Your task to perform on an android device: turn on the 24-hour format for clock Image 0: 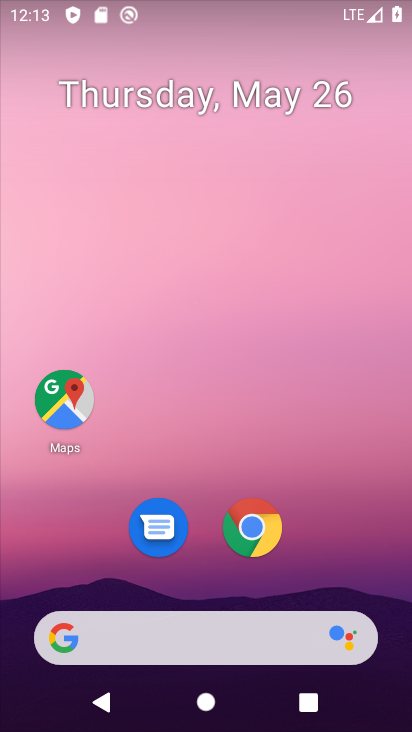
Step 0: drag from (210, 554) to (144, 9)
Your task to perform on an android device: turn on the 24-hour format for clock Image 1: 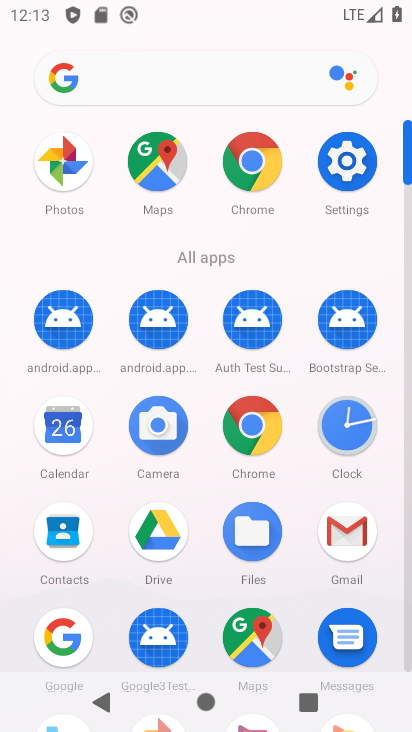
Step 1: click (355, 437)
Your task to perform on an android device: turn on the 24-hour format for clock Image 2: 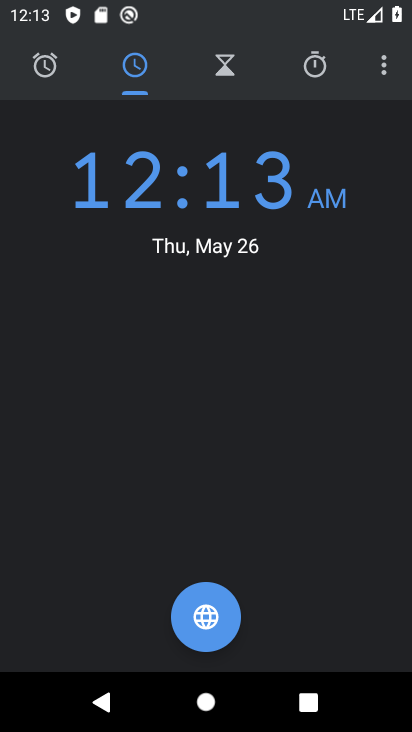
Step 2: click (392, 57)
Your task to perform on an android device: turn on the 24-hour format for clock Image 3: 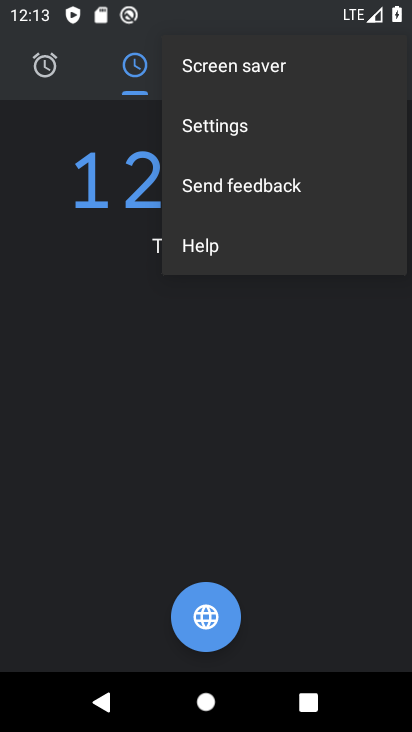
Step 3: click (233, 142)
Your task to perform on an android device: turn on the 24-hour format for clock Image 4: 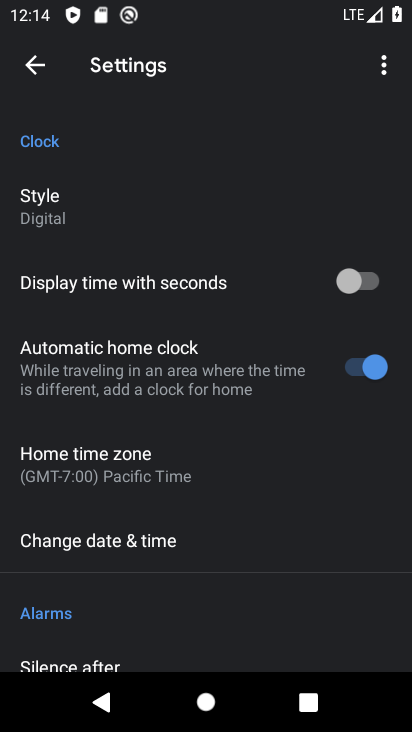
Step 4: click (128, 530)
Your task to perform on an android device: turn on the 24-hour format for clock Image 5: 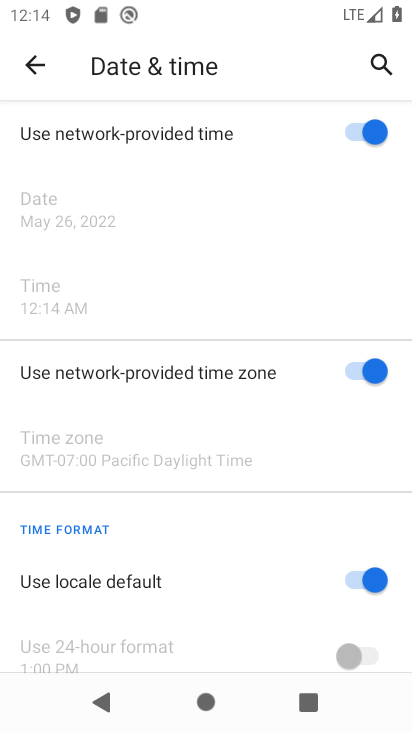
Step 5: click (355, 587)
Your task to perform on an android device: turn on the 24-hour format for clock Image 6: 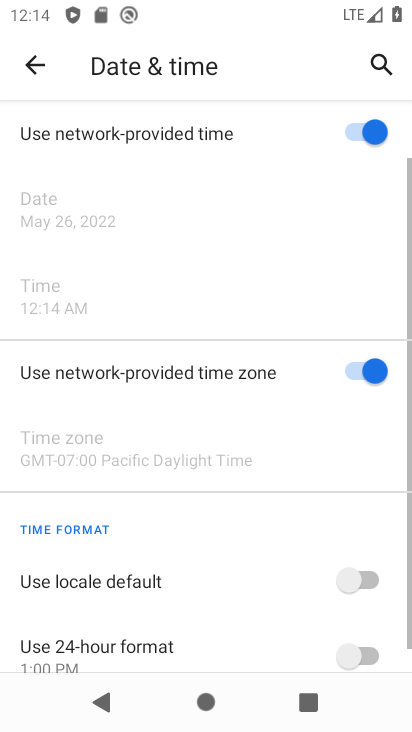
Step 6: click (359, 656)
Your task to perform on an android device: turn on the 24-hour format for clock Image 7: 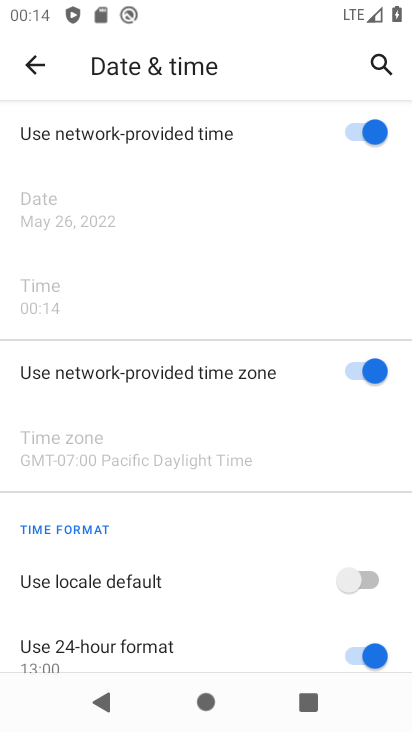
Step 7: task complete